Your task to perform on an android device: open sync settings in chrome Image 0: 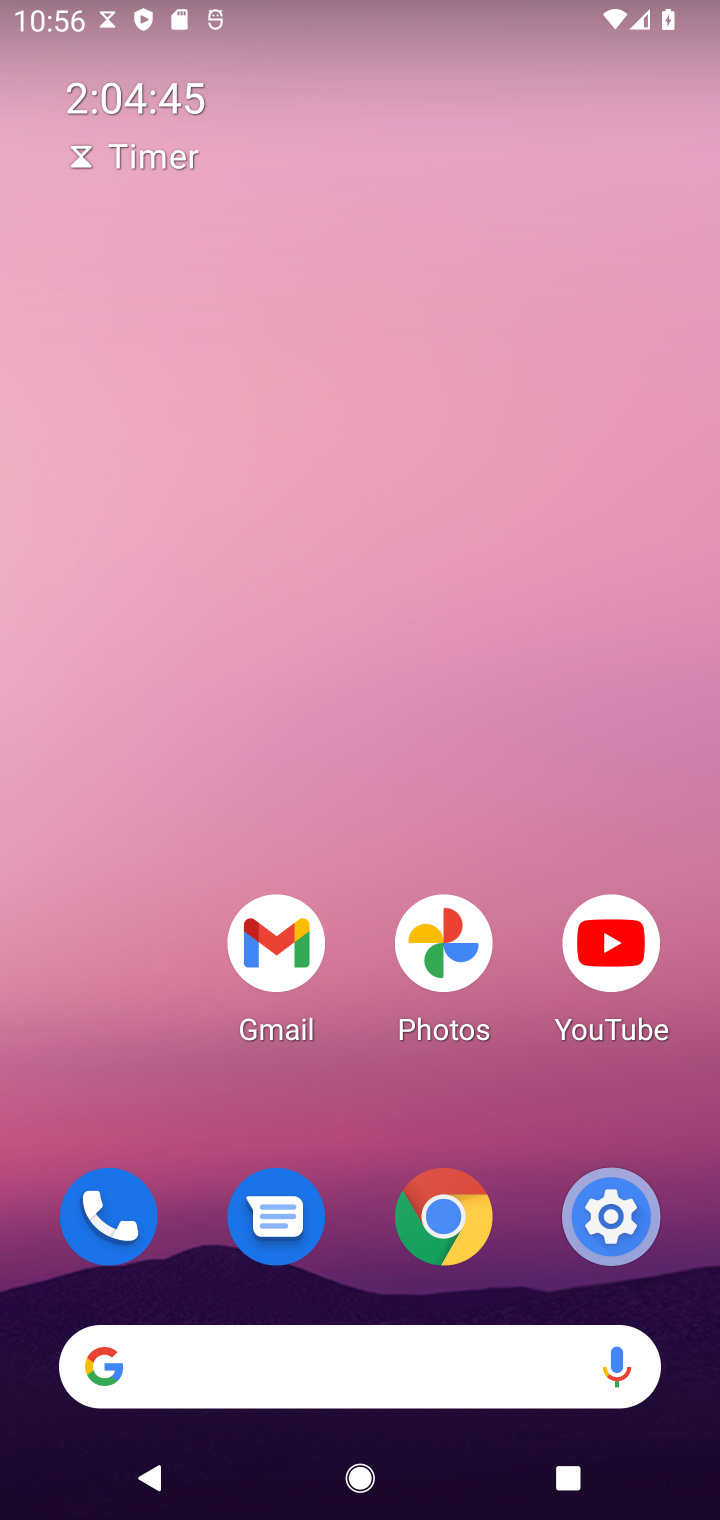
Step 0: click (589, 1200)
Your task to perform on an android device: open sync settings in chrome Image 1: 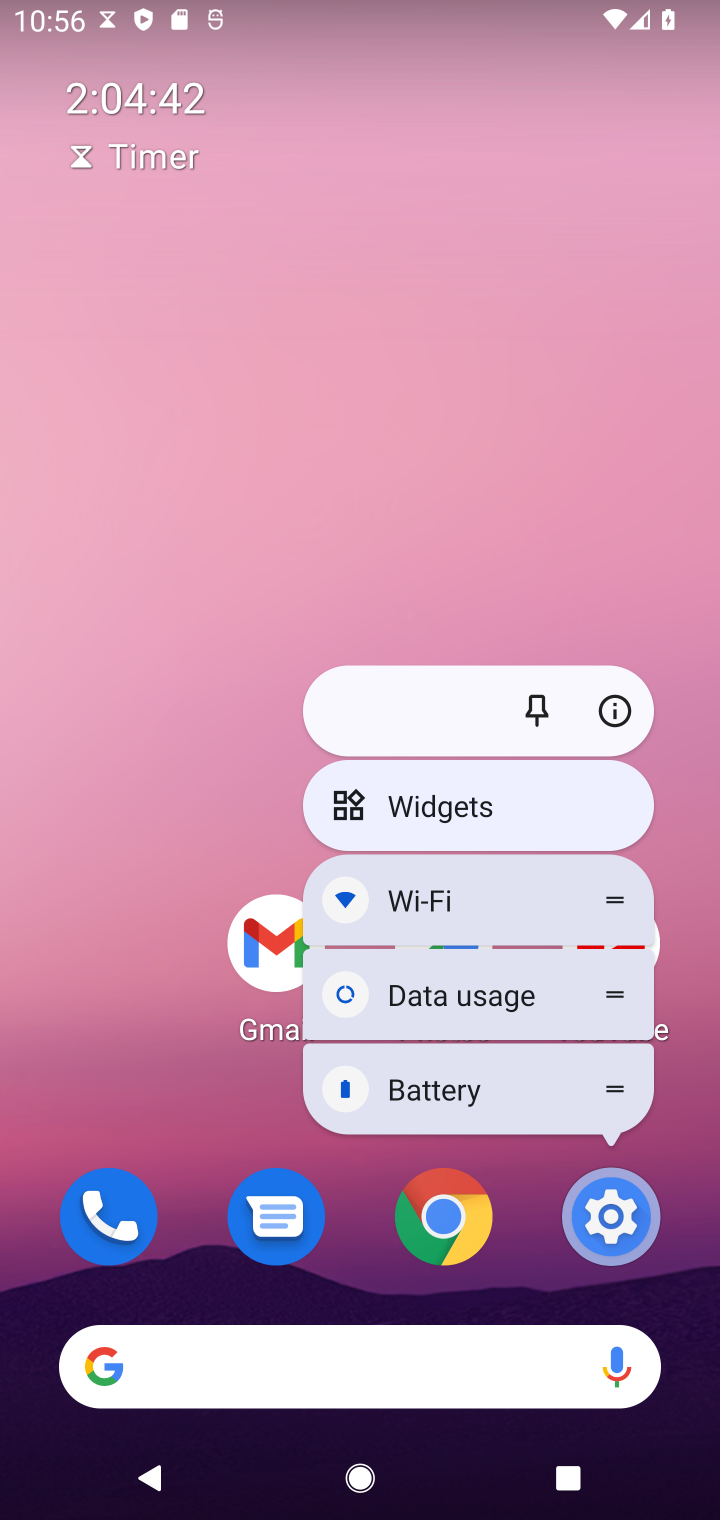
Step 1: click (180, 508)
Your task to perform on an android device: open sync settings in chrome Image 2: 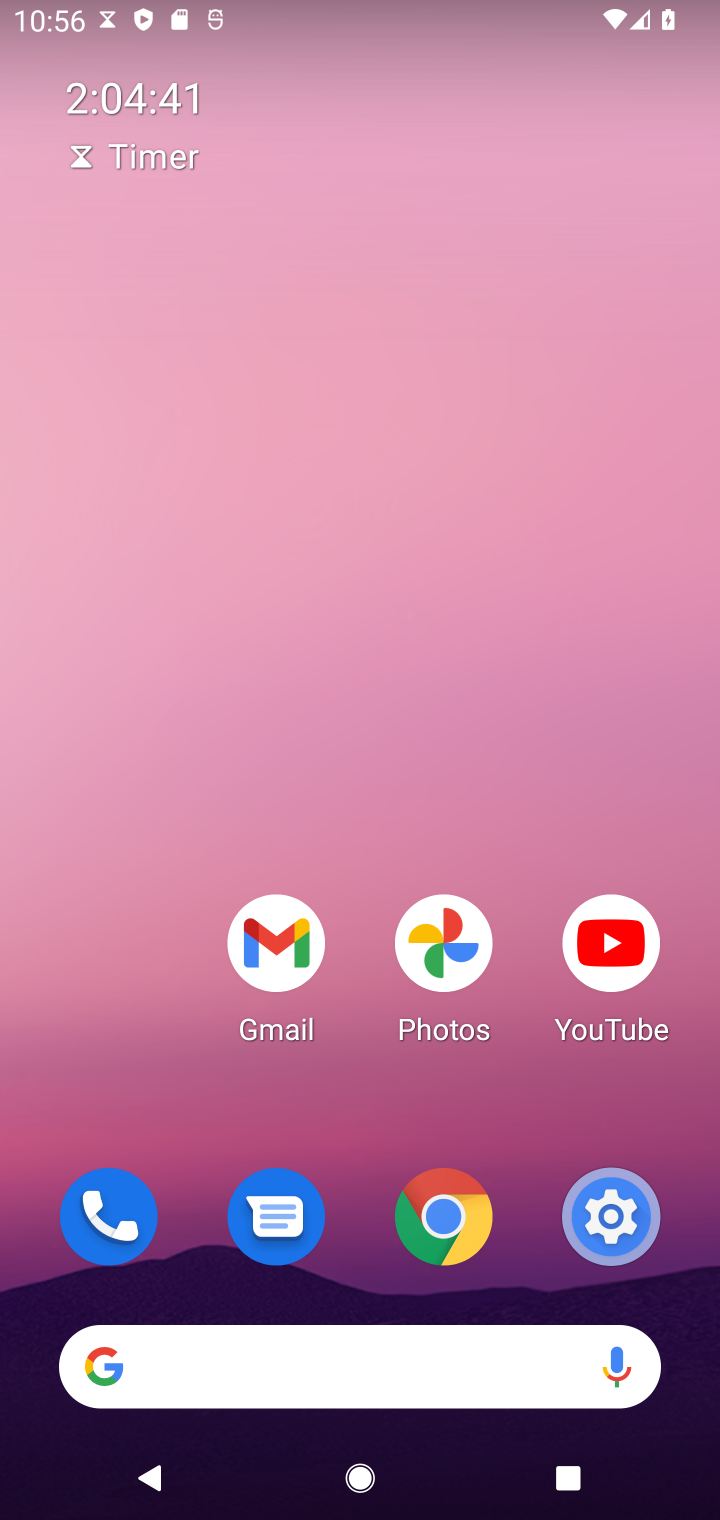
Step 2: click (448, 1206)
Your task to perform on an android device: open sync settings in chrome Image 3: 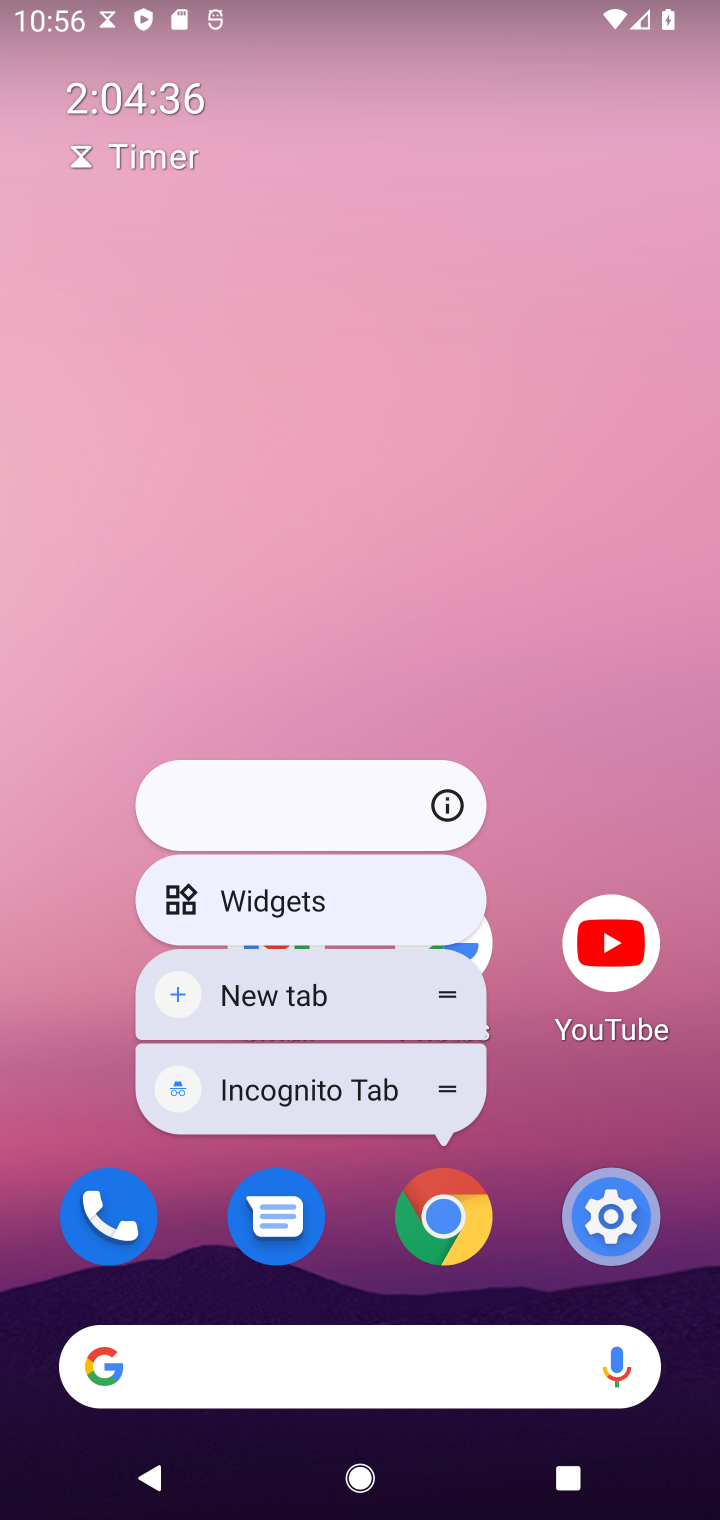
Step 3: click (431, 1204)
Your task to perform on an android device: open sync settings in chrome Image 4: 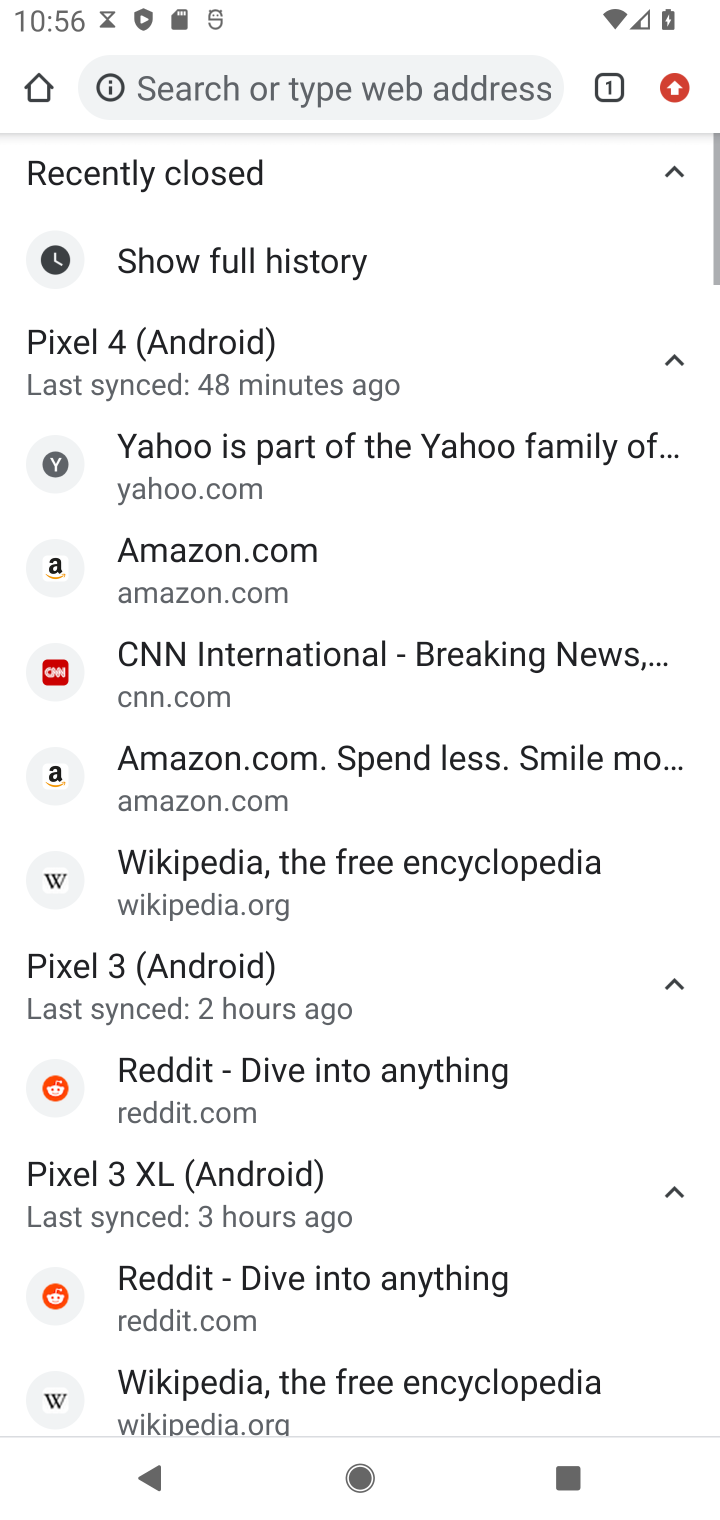
Step 4: drag from (666, 90) to (447, 893)
Your task to perform on an android device: open sync settings in chrome Image 5: 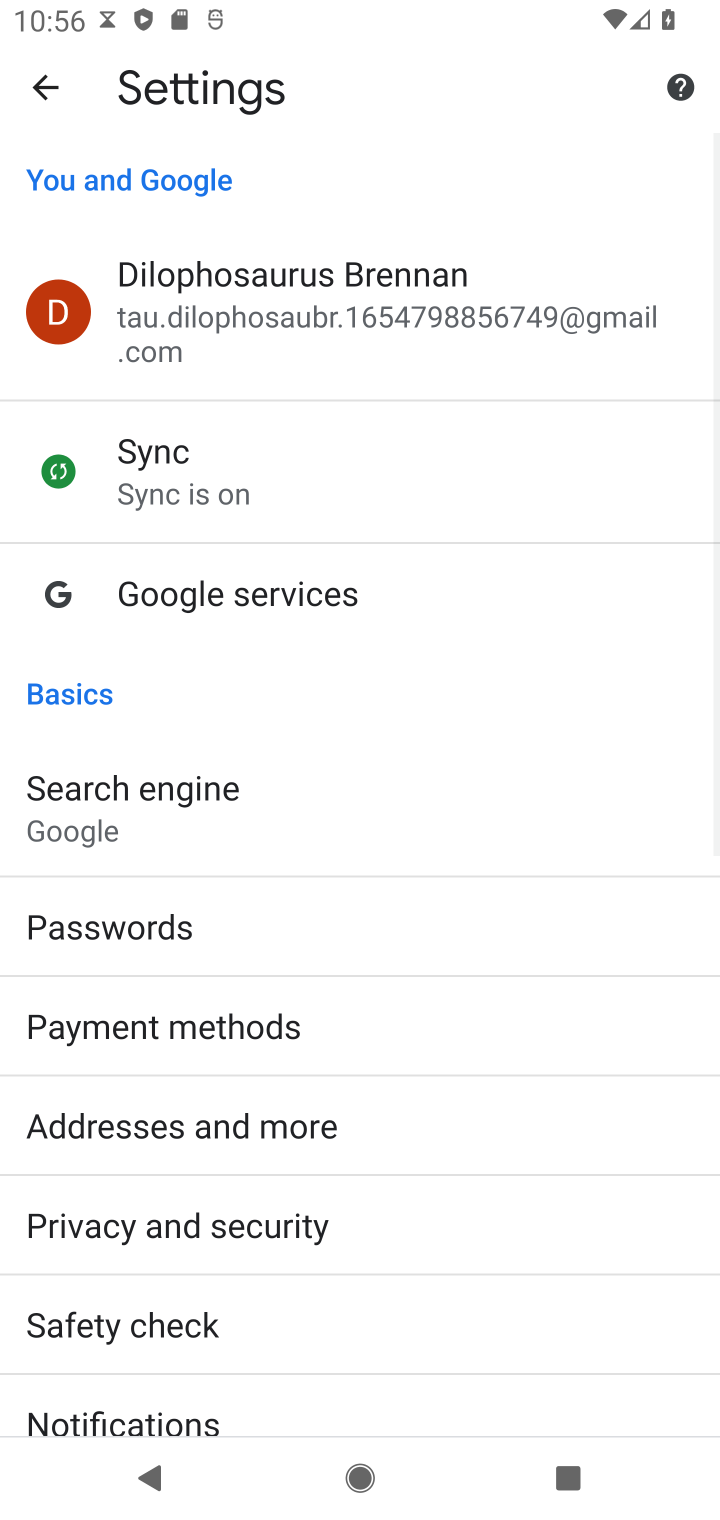
Step 5: click (279, 467)
Your task to perform on an android device: open sync settings in chrome Image 6: 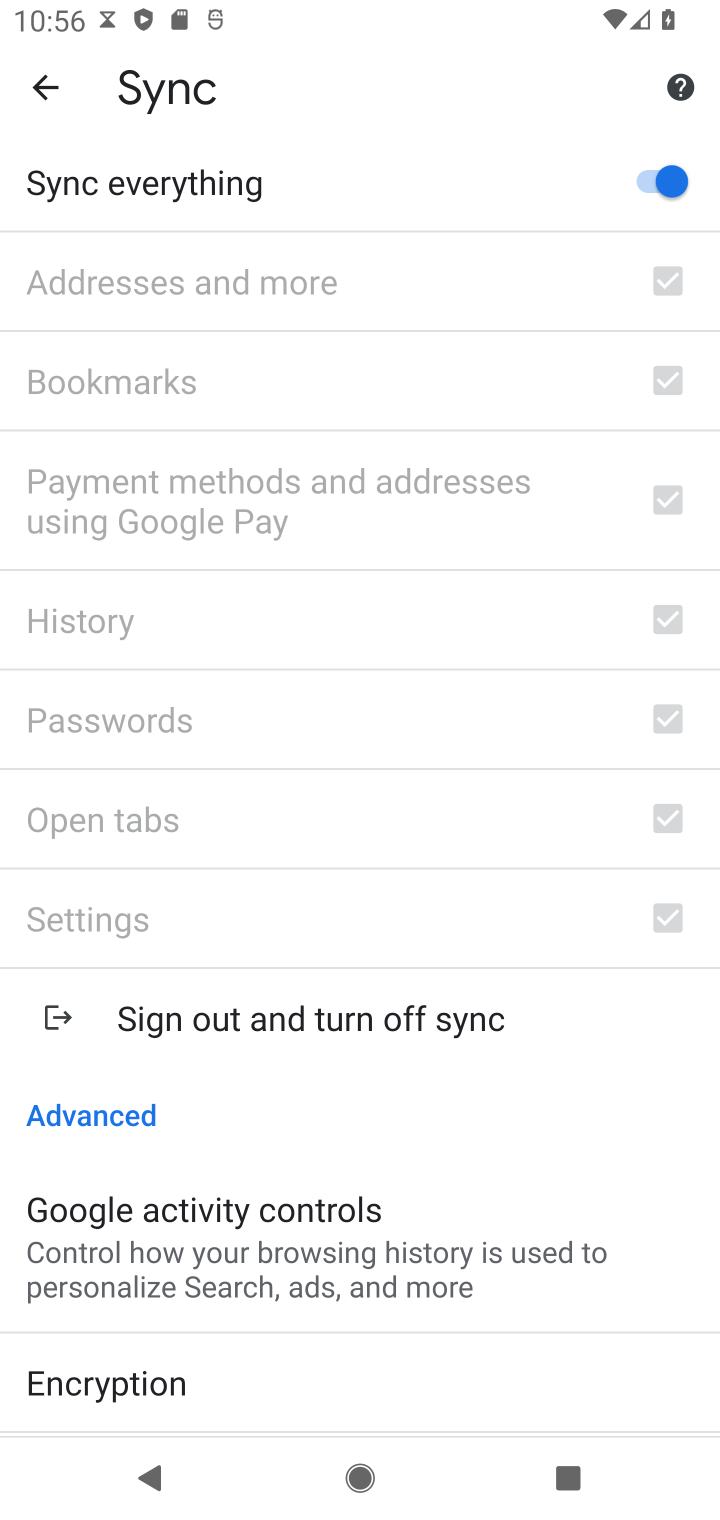
Step 6: task complete